Your task to perform on an android device: stop showing notifications on the lock screen Image 0: 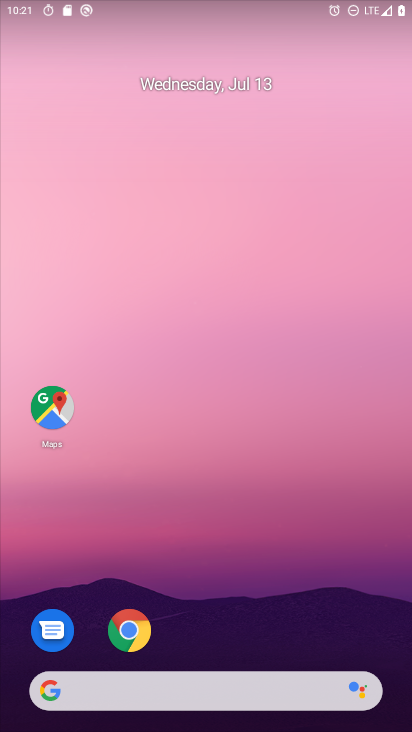
Step 0: click (270, 20)
Your task to perform on an android device: stop showing notifications on the lock screen Image 1: 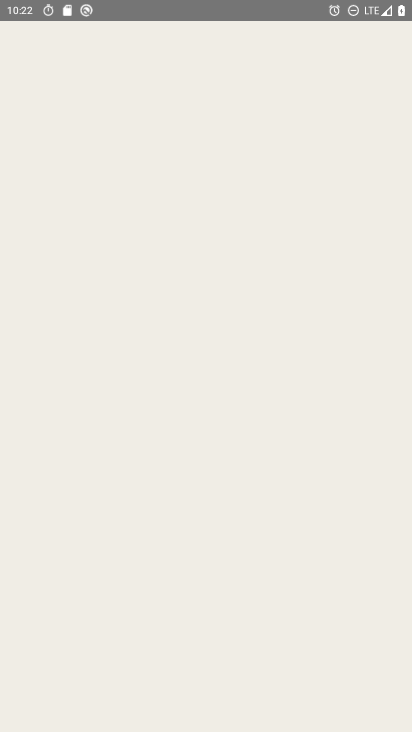
Step 1: press home button
Your task to perform on an android device: stop showing notifications on the lock screen Image 2: 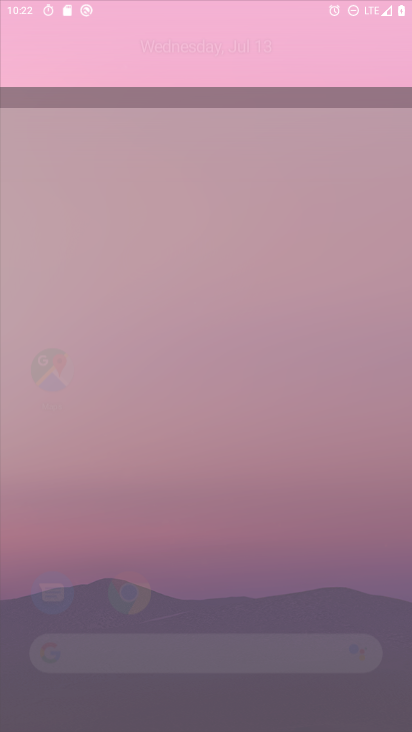
Step 2: drag from (407, 694) to (265, 113)
Your task to perform on an android device: stop showing notifications on the lock screen Image 3: 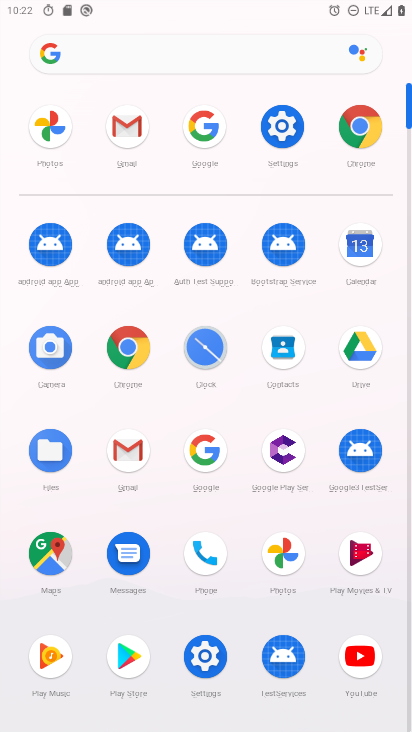
Step 3: click (191, 670)
Your task to perform on an android device: stop showing notifications on the lock screen Image 4: 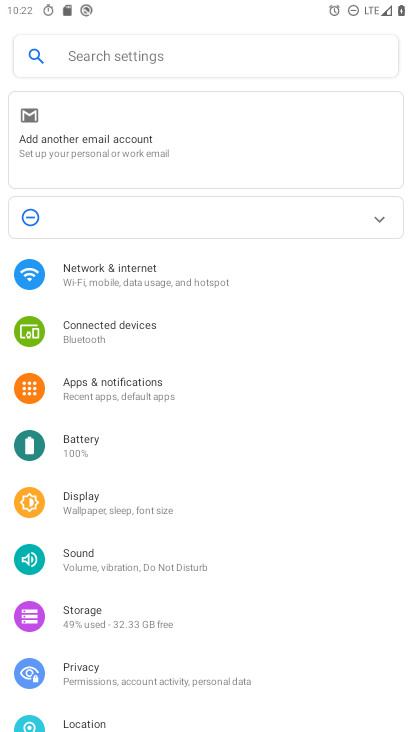
Step 4: click (147, 383)
Your task to perform on an android device: stop showing notifications on the lock screen Image 5: 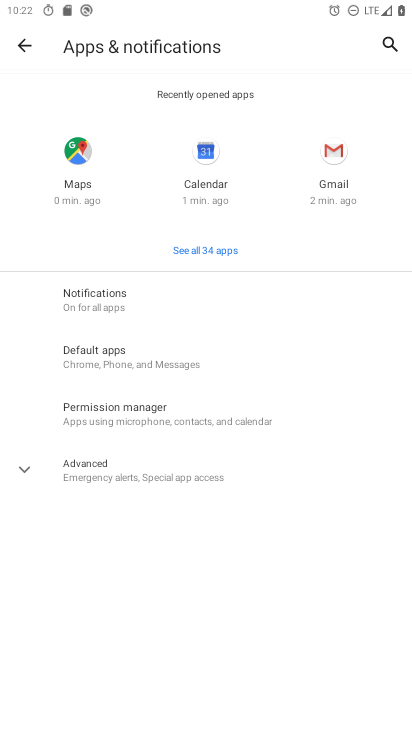
Step 5: click (116, 293)
Your task to perform on an android device: stop showing notifications on the lock screen Image 6: 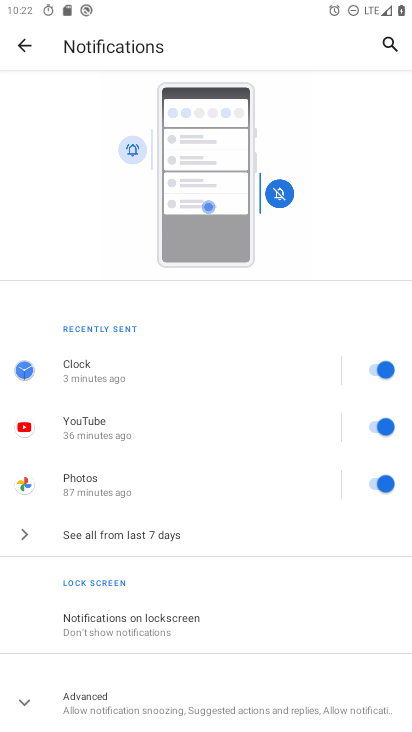
Step 6: click (208, 628)
Your task to perform on an android device: stop showing notifications on the lock screen Image 7: 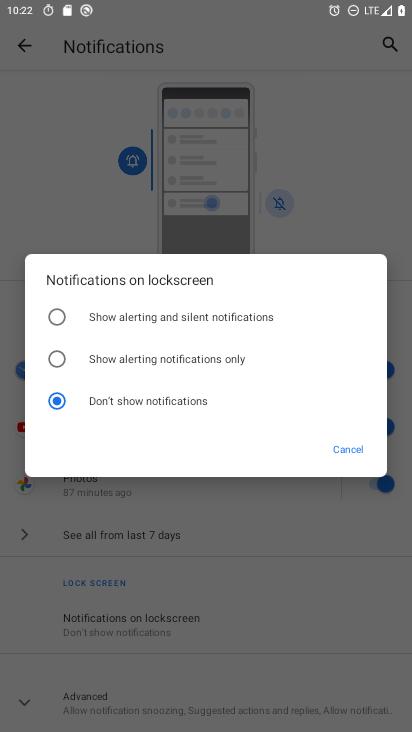
Step 7: task complete